Your task to perform on an android device: clear history in the chrome app Image 0: 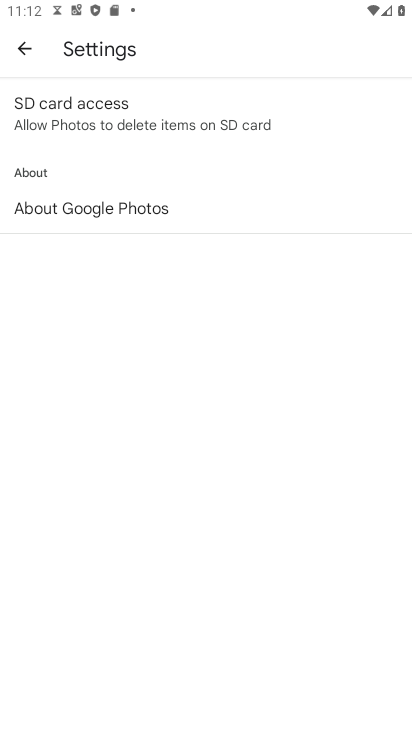
Step 0: press home button
Your task to perform on an android device: clear history in the chrome app Image 1: 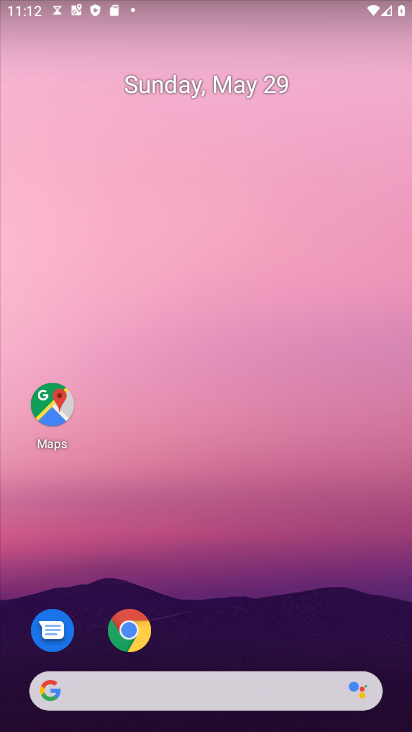
Step 1: click (131, 611)
Your task to perform on an android device: clear history in the chrome app Image 2: 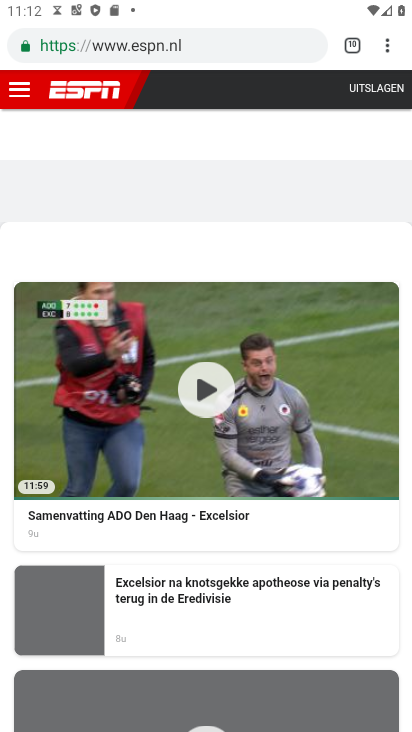
Step 2: click (400, 51)
Your task to perform on an android device: clear history in the chrome app Image 3: 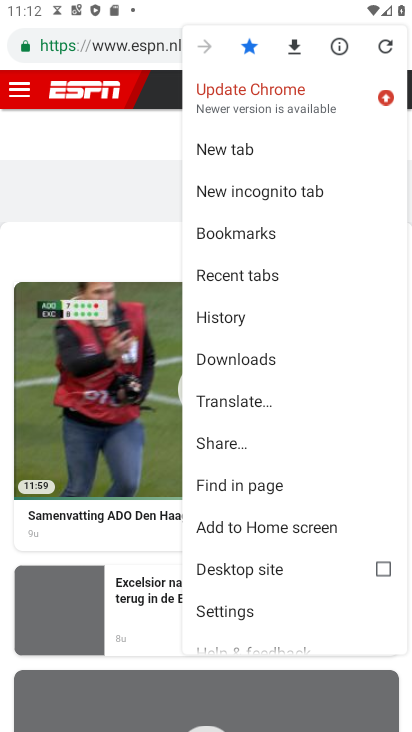
Step 3: click (237, 305)
Your task to perform on an android device: clear history in the chrome app Image 4: 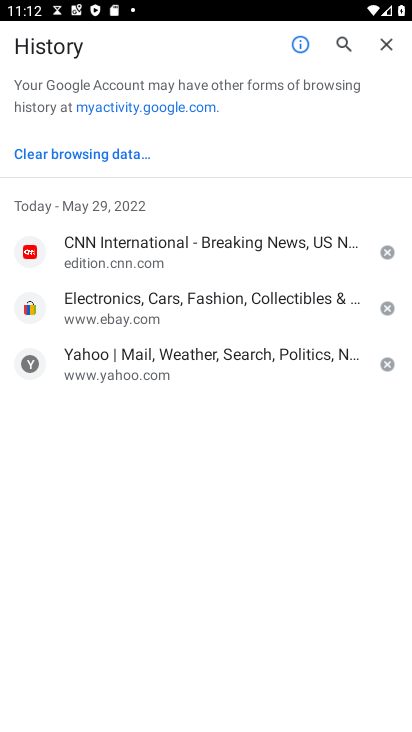
Step 4: click (51, 148)
Your task to perform on an android device: clear history in the chrome app Image 5: 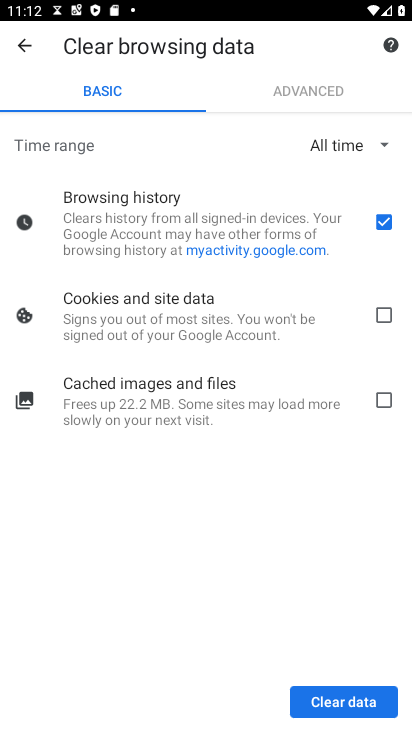
Step 5: click (320, 695)
Your task to perform on an android device: clear history in the chrome app Image 6: 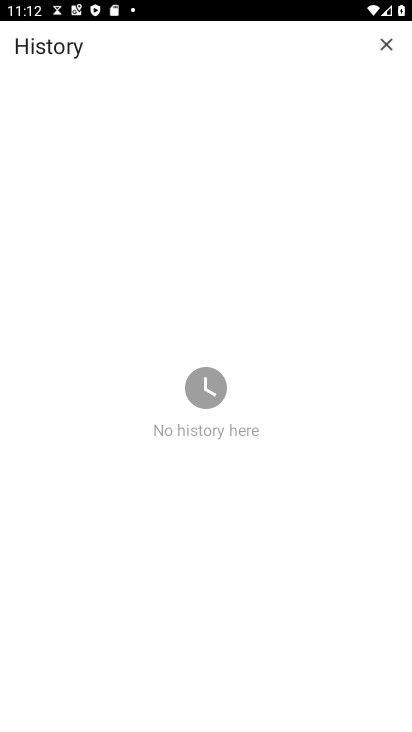
Step 6: task complete